Your task to perform on an android device: Set the phone to "Do not disturb". Image 0: 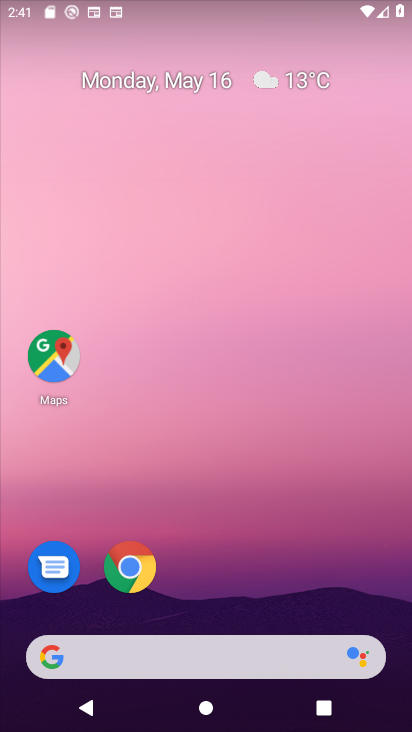
Step 0: drag from (248, 4) to (245, 371)
Your task to perform on an android device: Set the phone to "Do not disturb". Image 1: 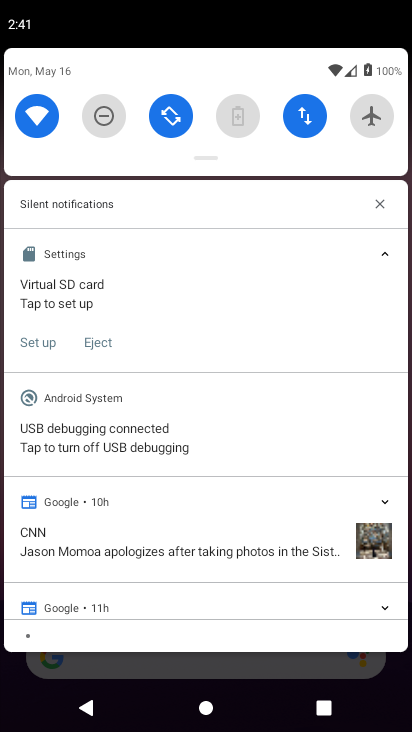
Step 1: click (94, 115)
Your task to perform on an android device: Set the phone to "Do not disturb". Image 2: 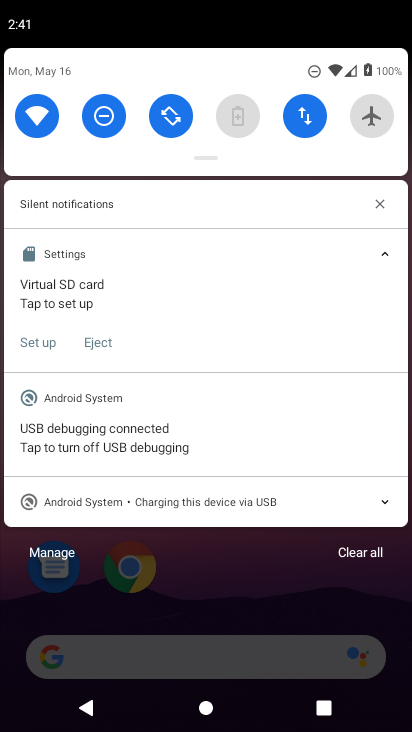
Step 2: task complete